Your task to perform on an android device: turn off location history Image 0: 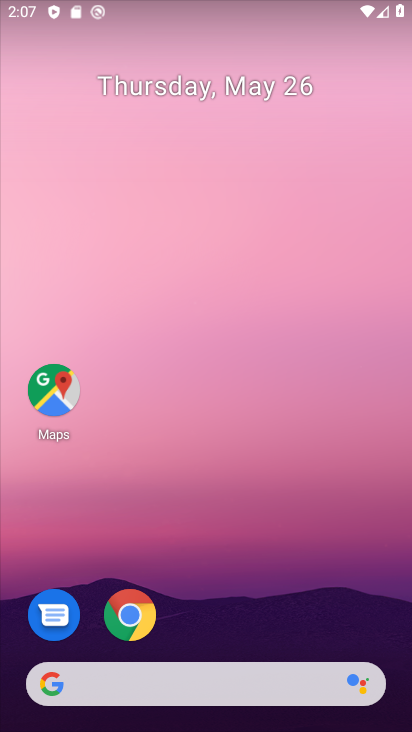
Step 0: drag from (175, 653) to (250, 147)
Your task to perform on an android device: turn off location history Image 1: 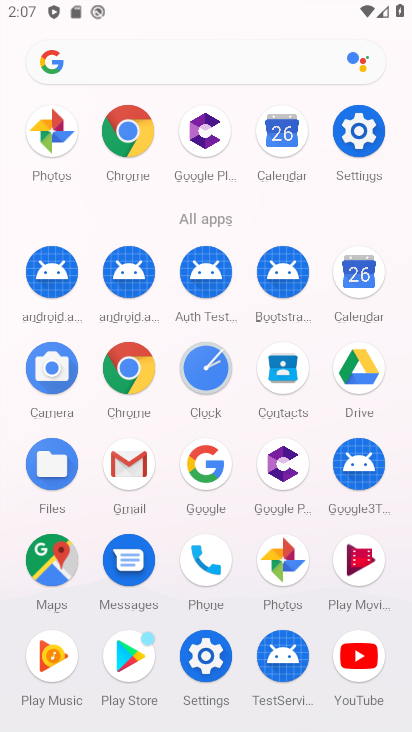
Step 1: click (213, 663)
Your task to perform on an android device: turn off location history Image 2: 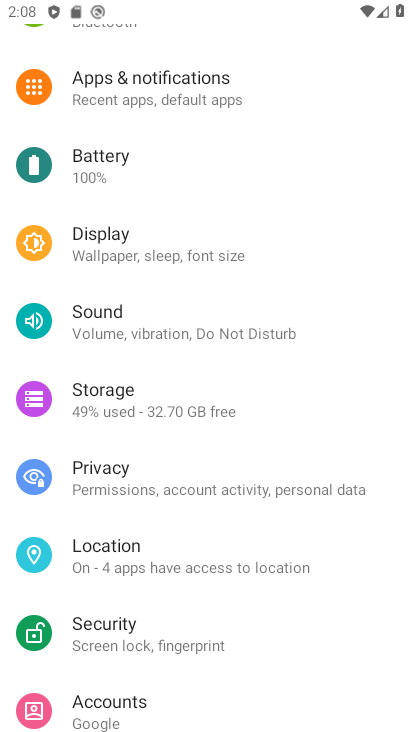
Step 2: click (179, 553)
Your task to perform on an android device: turn off location history Image 3: 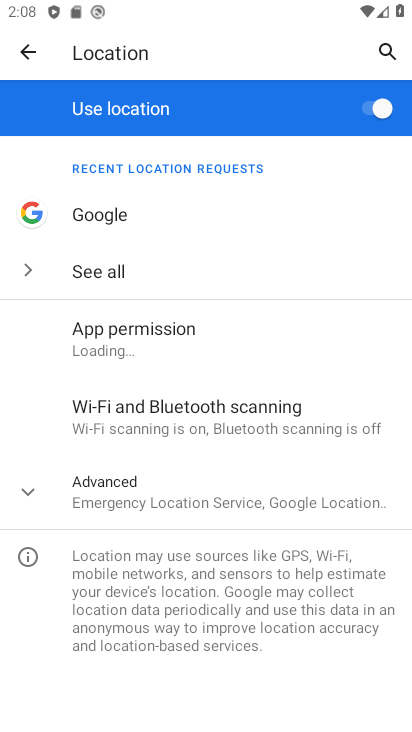
Step 3: click (160, 522)
Your task to perform on an android device: turn off location history Image 4: 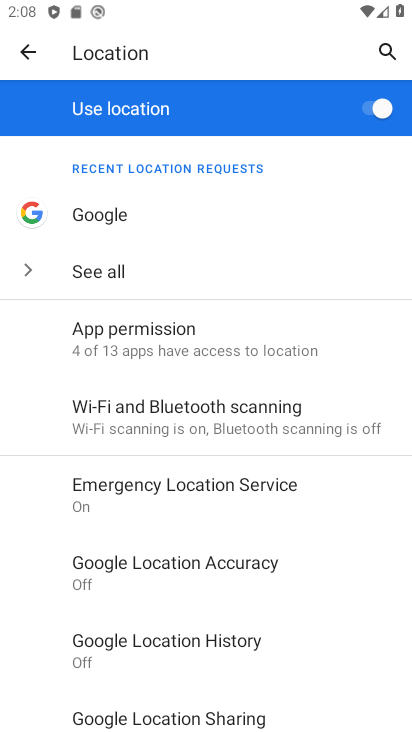
Step 4: click (278, 649)
Your task to perform on an android device: turn off location history Image 5: 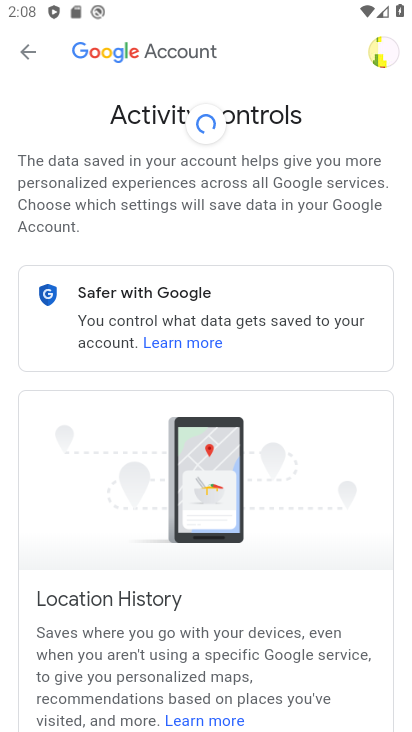
Step 5: drag from (148, 651) to (281, 191)
Your task to perform on an android device: turn off location history Image 6: 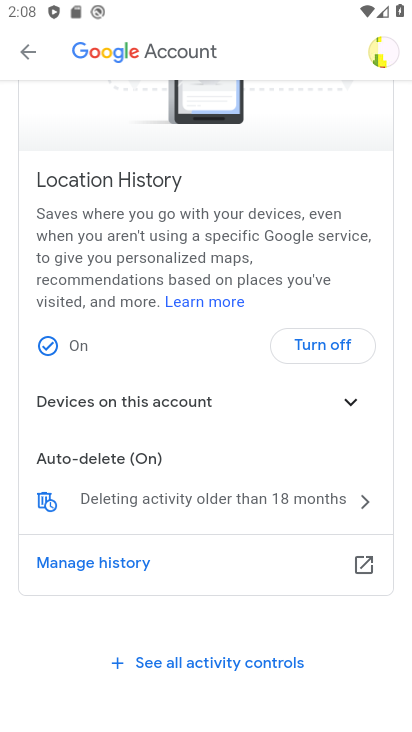
Step 6: click (348, 349)
Your task to perform on an android device: turn off location history Image 7: 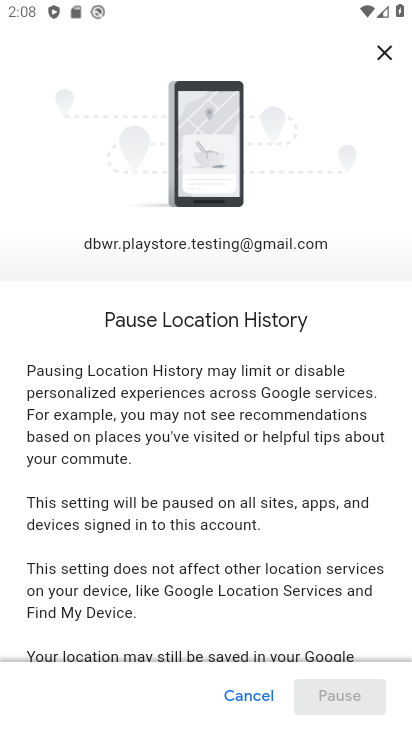
Step 7: drag from (289, 593) to (399, 412)
Your task to perform on an android device: turn off location history Image 8: 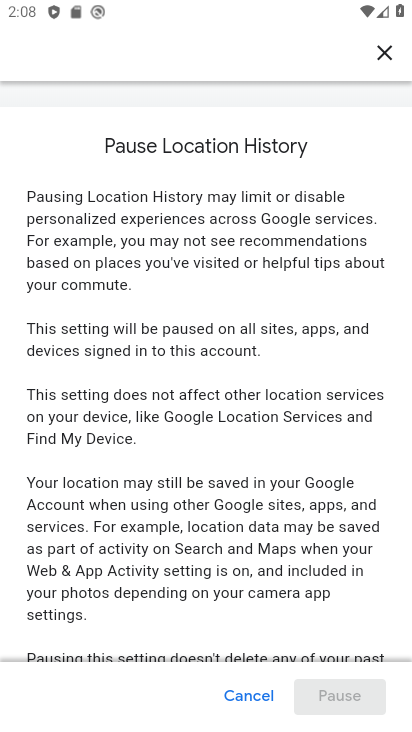
Step 8: drag from (278, 558) to (408, 431)
Your task to perform on an android device: turn off location history Image 9: 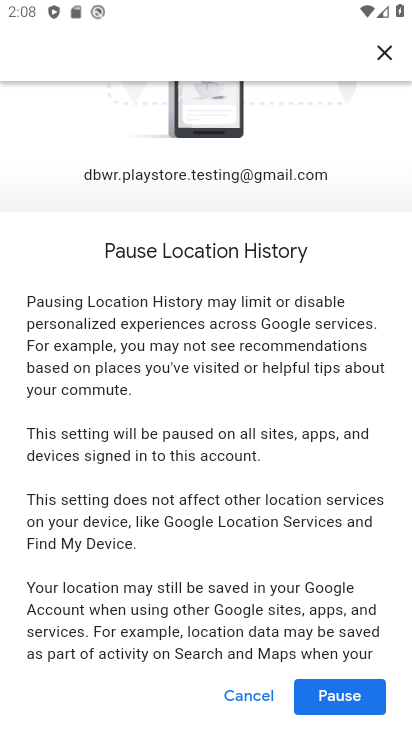
Step 9: drag from (271, 582) to (410, 435)
Your task to perform on an android device: turn off location history Image 10: 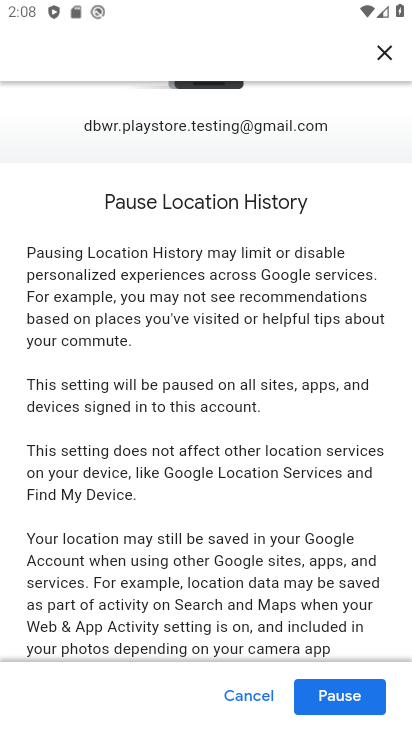
Step 10: click (343, 695)
Your task to perform on an android device: turn off location history Image 11: 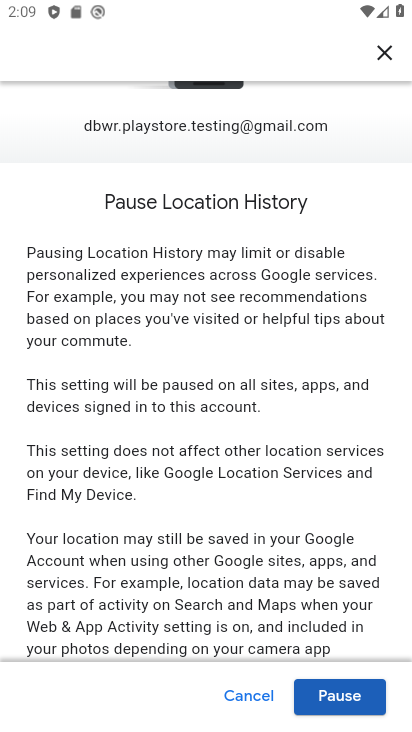
Step 11: click (346, 699)
Your task to perform on an android device: turn off location history Image 12: 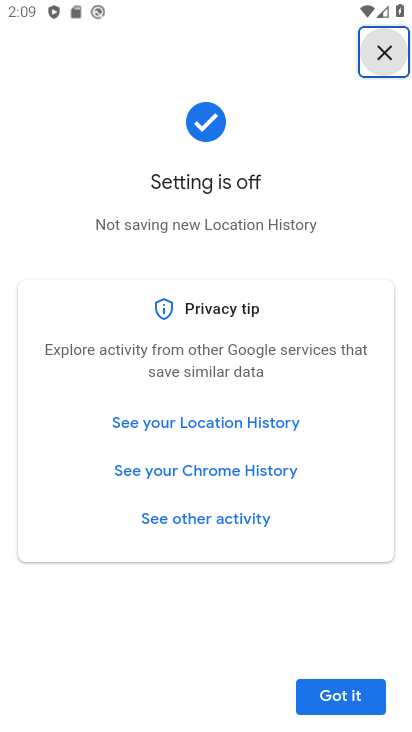
Step 12: click (377, 692)
Your task to perform on an android device: turn off location history Image 13: 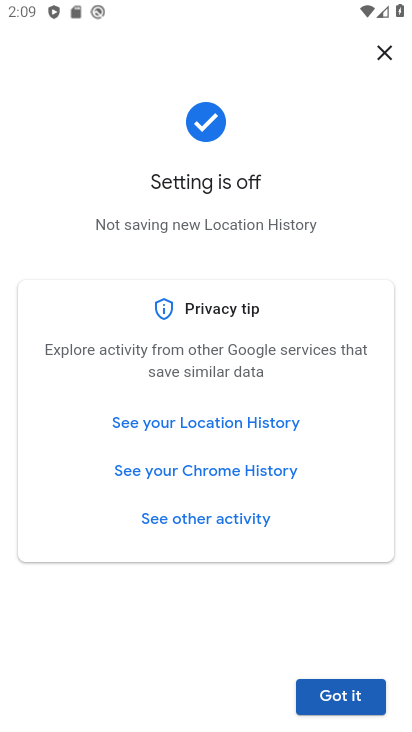
Step 13: click (377, 692)
Your task to perform on an android device: turn off location history Image 14: 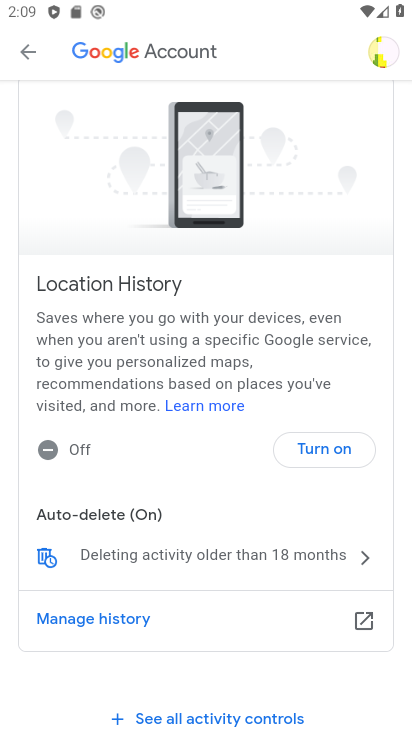
Step 14: task complete